Your task to perform on an android device: Open Reddit.com Image 0: 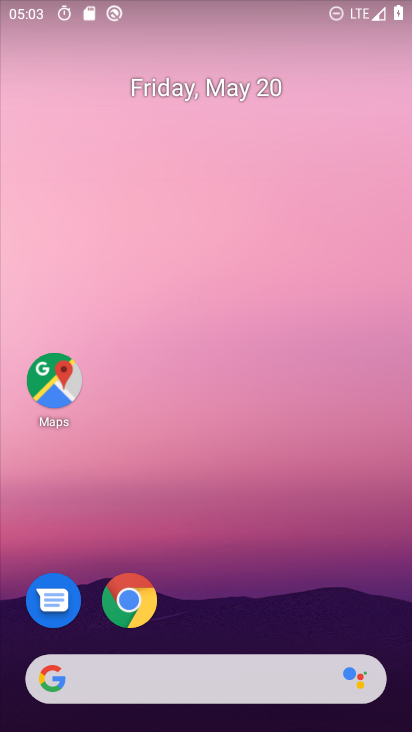
Step 0: click (129, 594)
Your task to perform on an android device: Open Reddit.com Image 1: 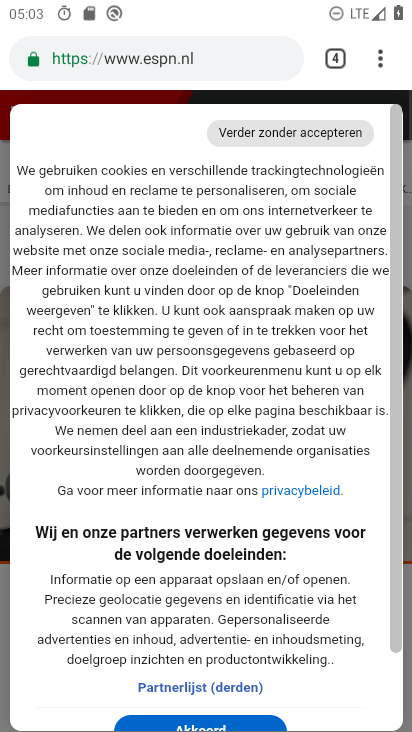
Step 1: click (338, 66)
Your task to perform on an android device: Open Reddit.com Image 2: 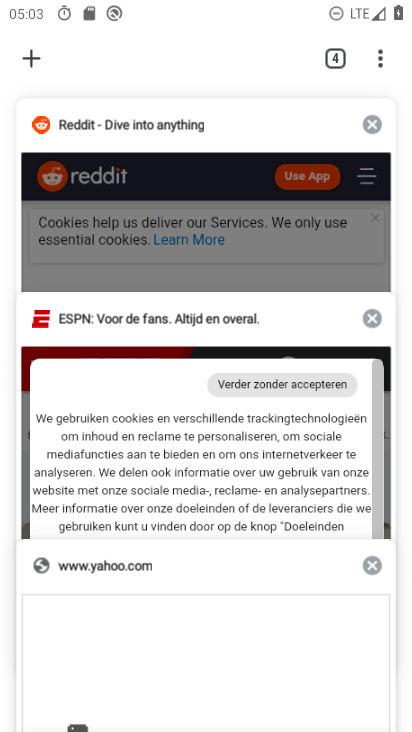
Step 2: click (72, 135)
Your task to perform on an android device: Open Reddit.com Image 3: 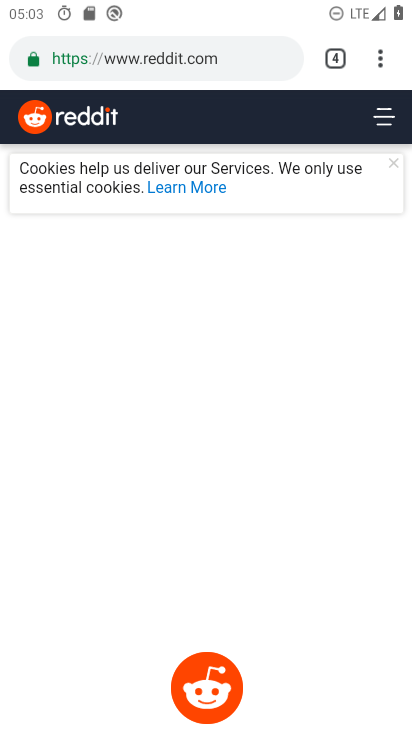
Step 3: task complete